Your task to perform on an android device: What's the weather going to be tomorrow? Image 0: 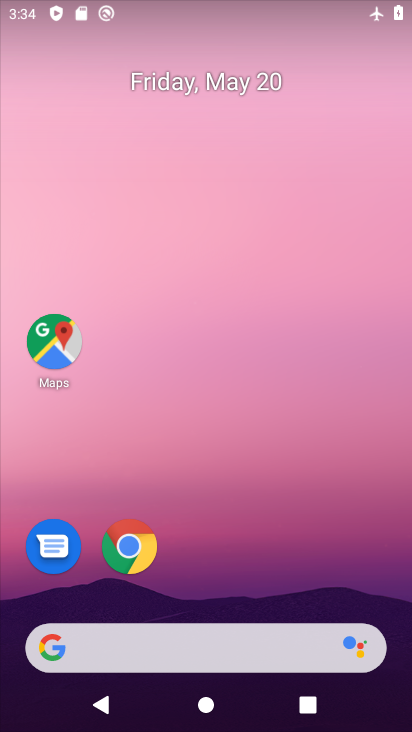
Step 0: drag from (261, 533) to (263, 161)
Your task to perform on an android device: What's the weather going to be tomorrow? Image 1: 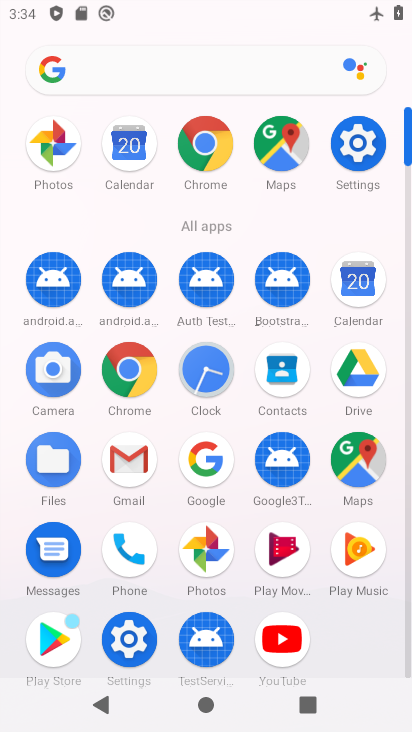
Step 1: click (140, 360)
Your task to perform on an android device: What's the weather going to be tomorrow? Image 2: 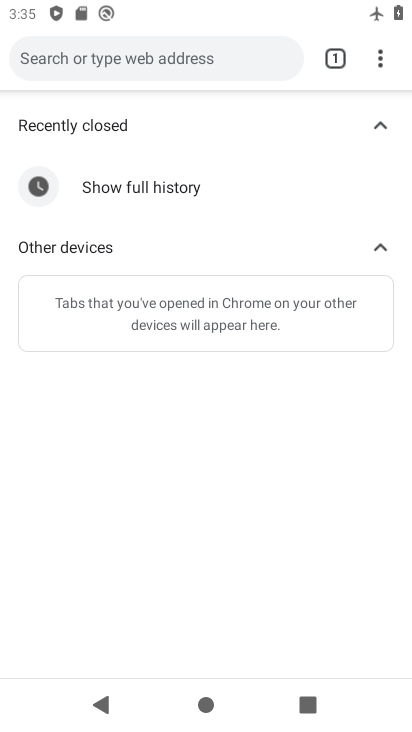
Step 2: click (180, 56)
Your task to perform on an android device: What's the weather going to be tomorrow? Image 3: 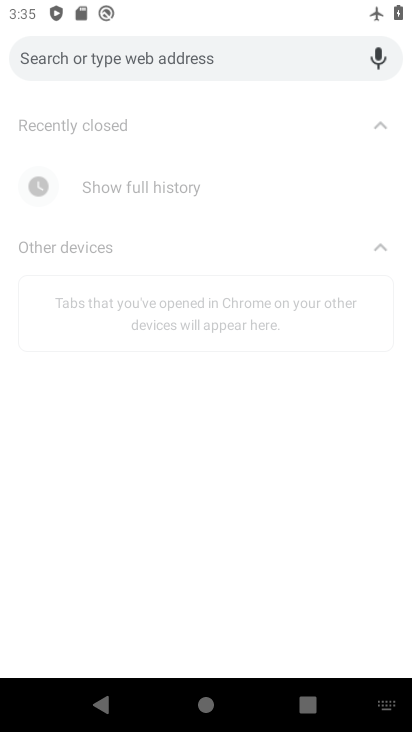
Step 3: type ""
Your task to perform on an android device: What's the weather going to be tomorrow? Image 4: 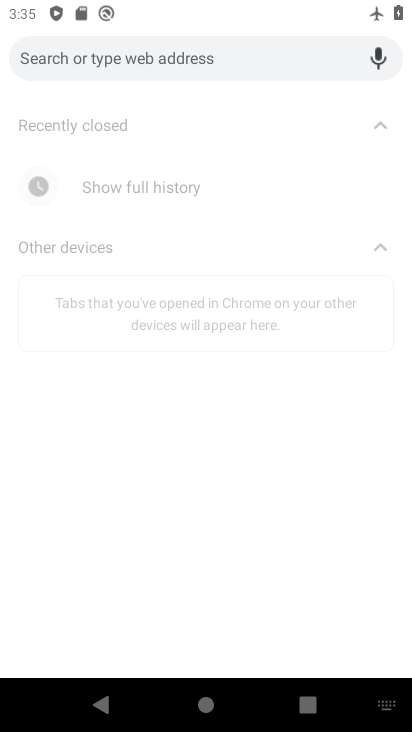
Step 4: type "weather"
Your task to perform on an android device: What's the weather going to be tomorrow? Image 5: 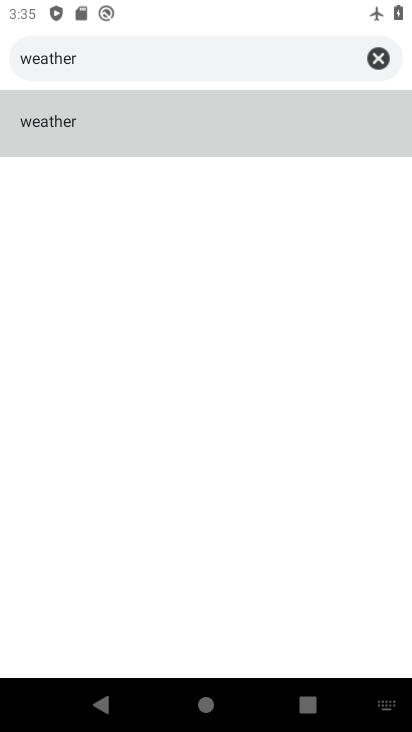
Step 5: click (48, 121)
Your task to perform on an android device: What's the weather going to be tomorrow? Image 6: 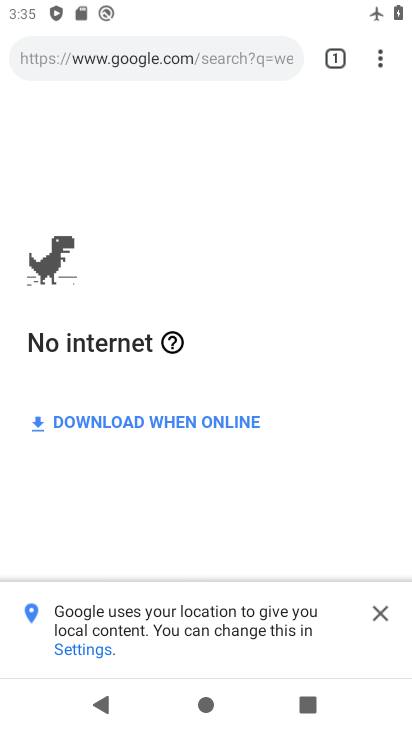
Step 6: task complete